Your task to perform on an android device: stop showing notifications on the lock screen Image 0: 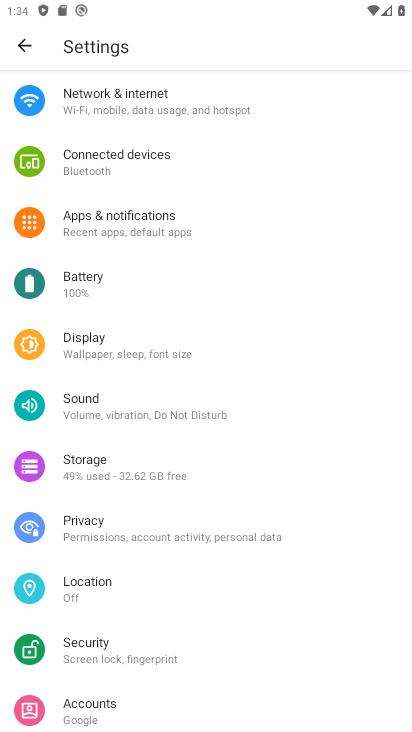
Step 0: press home button
Your task to perform on an android device: stop showing notifications on the lock screen Image 1: 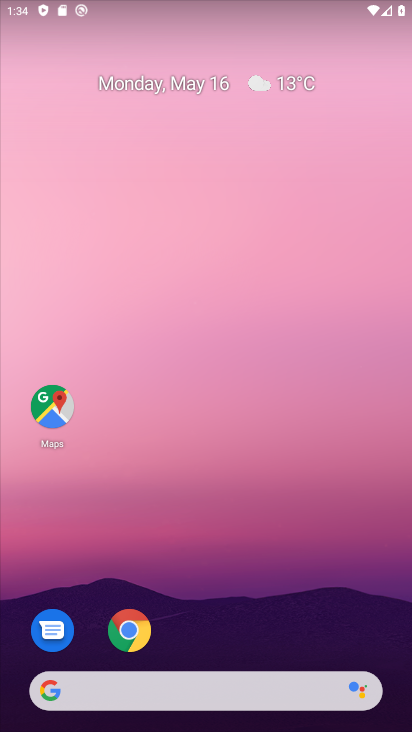
Step 1: drag from (382, 582) to (361, 169)
Your task to perform on an android device: stop showing notifications on the lock screen Image 2: 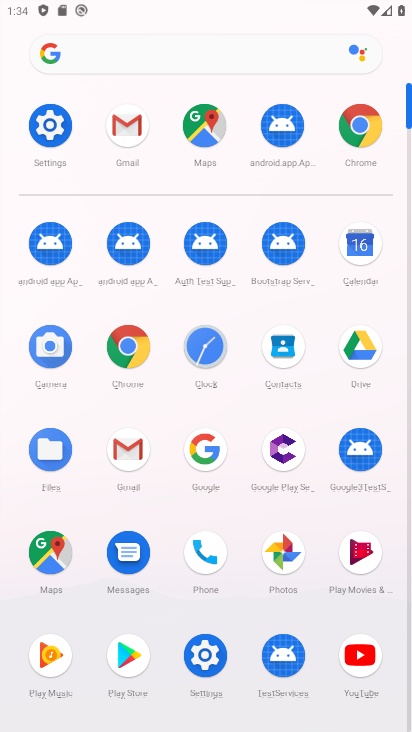
Step 2: click (54, 140)
Your task to perform on an android device: stop showing notifications on the lock screen Image 3: 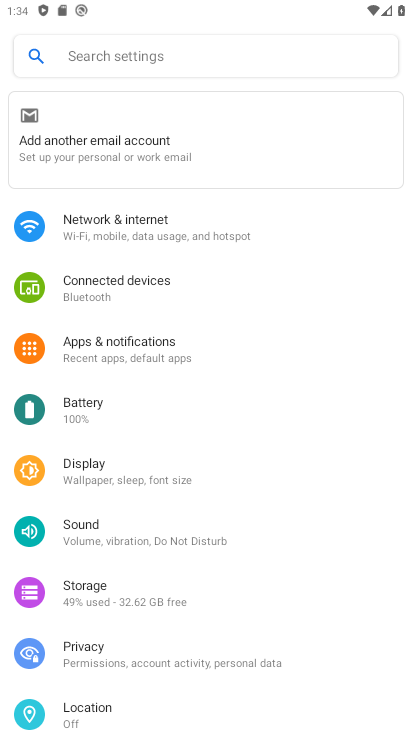
Step 3: click (132, 463)
Your task to perform on an android device: stop showing notifications on the lock screen Image 4: 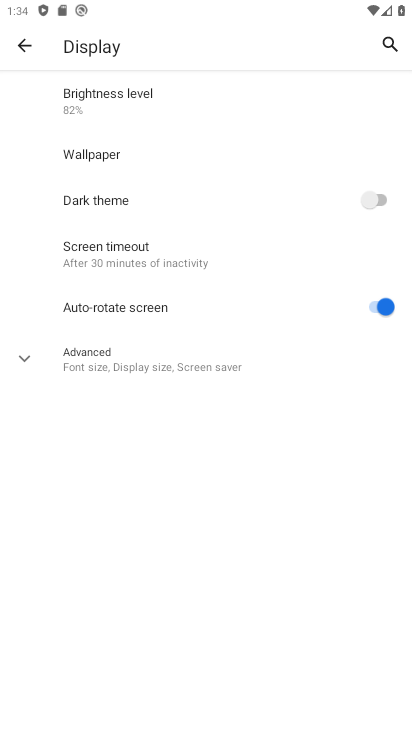
Step 4: click (136, 361)
Your task to perform on an android device: stop showing notifications on the lock screen Image 5: 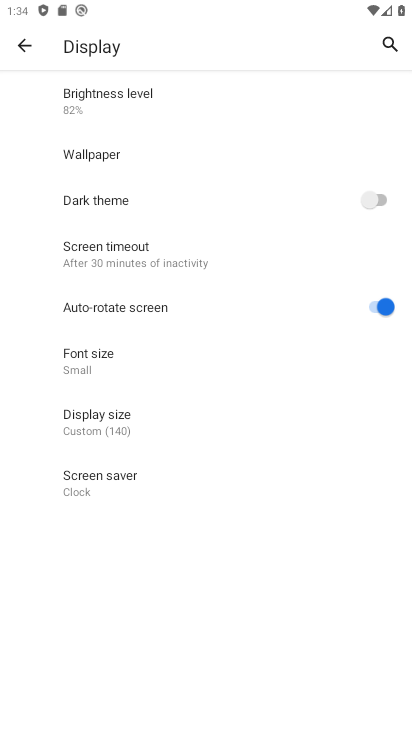
Step 5: press back button
Your task to perform on an android device: stop showing notifications on the lock screen Image 6: 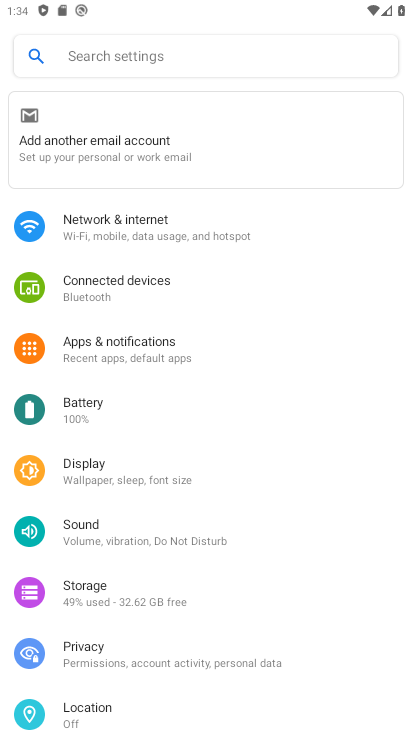
Step 6: click (44, 362)
Your task to perform on an android device: stop showing notifications on the lock screen Image 7: 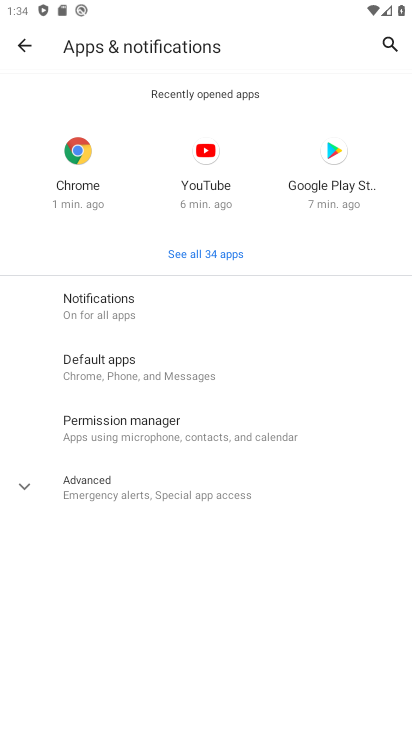
Step 7: click (118, 466)
Your task to perform on an android device: stop showing notifications on the lock screen Image 8: 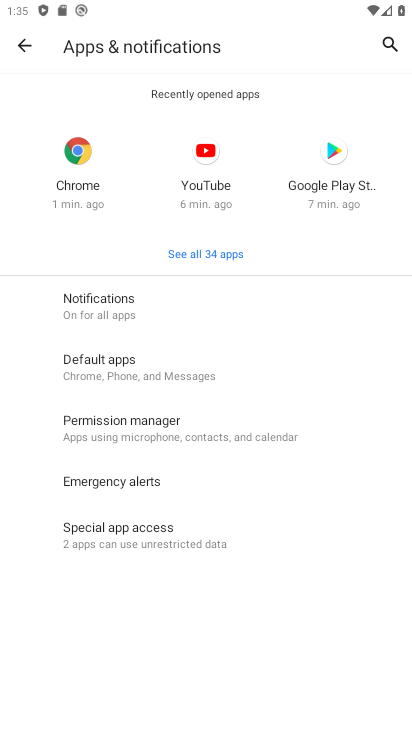
Step 8: click (88, 291)
Your task to perform on an android device: stop showing notifications on the lock screen Image 9: 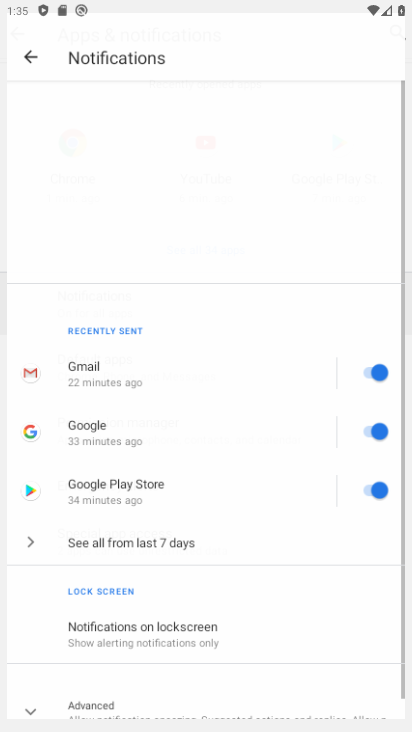
Step 9: click (88, 291)
Your task to perform on an android device: stop showing notifications on the lock screen Image 10: 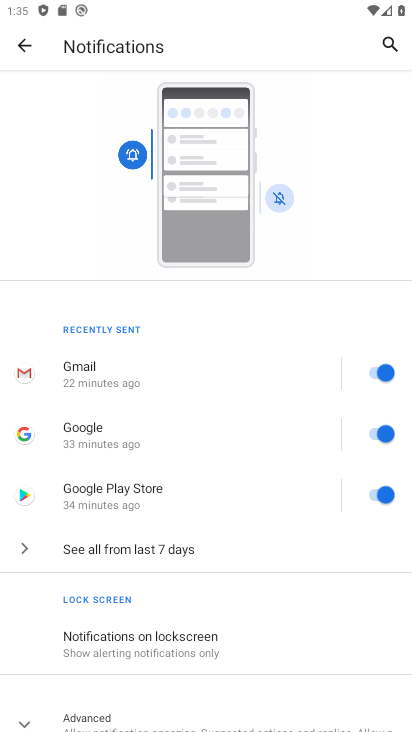
Step 10: click (193, 637)
Your task to perform on an android device: stop showing notifications on the lock screen Image 11: 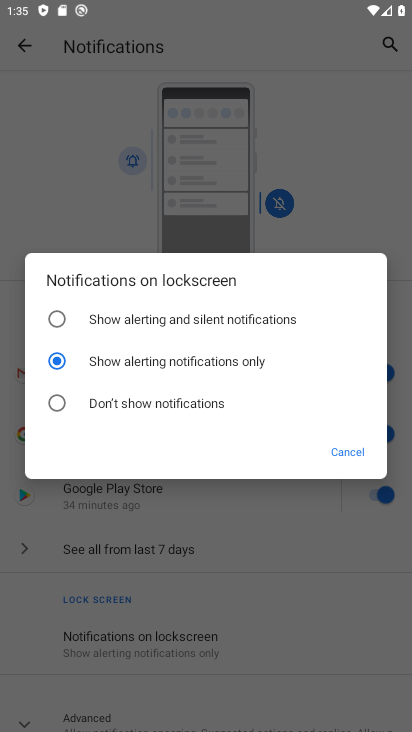
Step 11: click (145, 405)
Your task to perform on an android device: stop showing notifications on the lock screen Image 12: 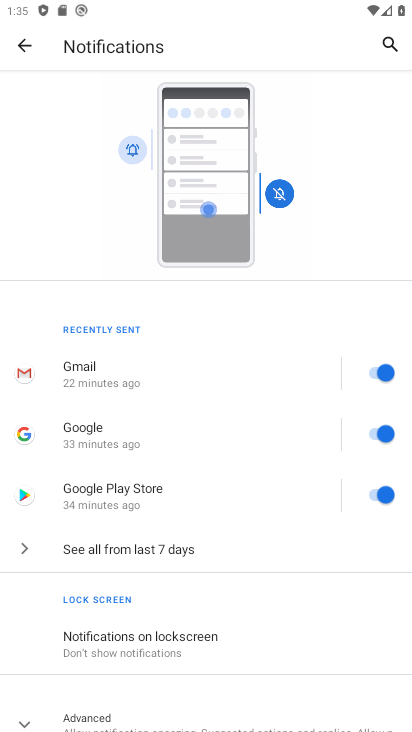
Step 12: task complete